Your task to perform on an android device: see sites visited before in the chrome app Image 0: 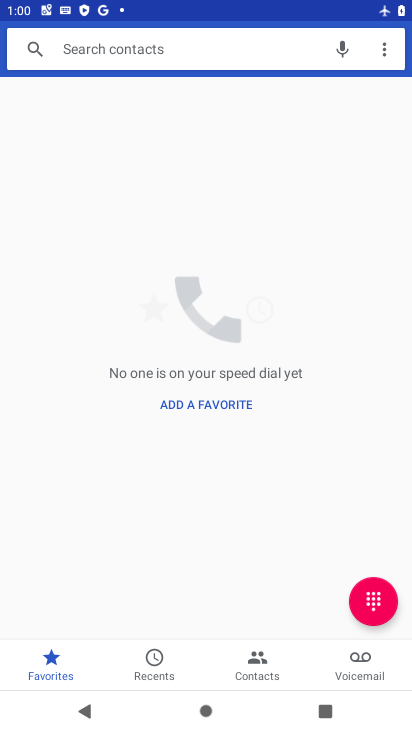
Step 0: press home button
Your task to perform on an android device: see sites visited before in the chrome app Image 1: 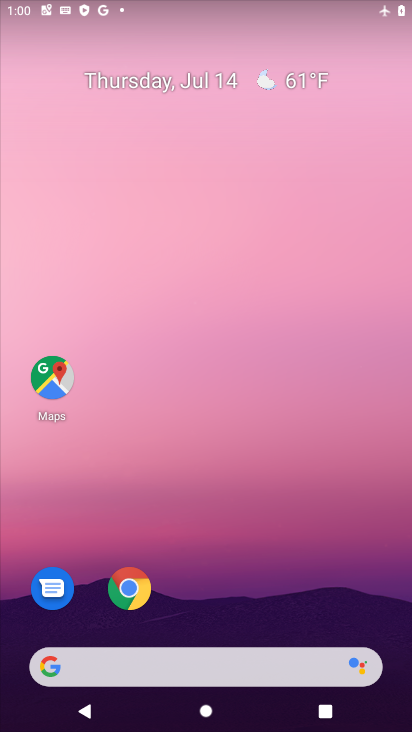
Step 1: click (130, 590)
Your task to perform on an android device: see sites visited before in the chrome app Image 2: 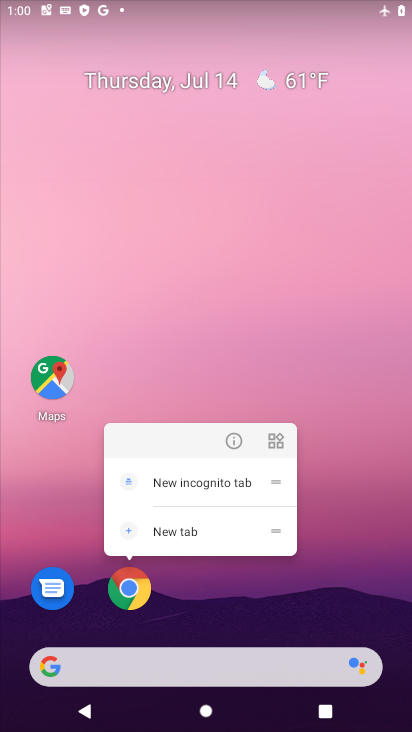
Step 2: click (132, 590)
Your task to perform on an android device: see sites visited before in the chrome app Image 3: 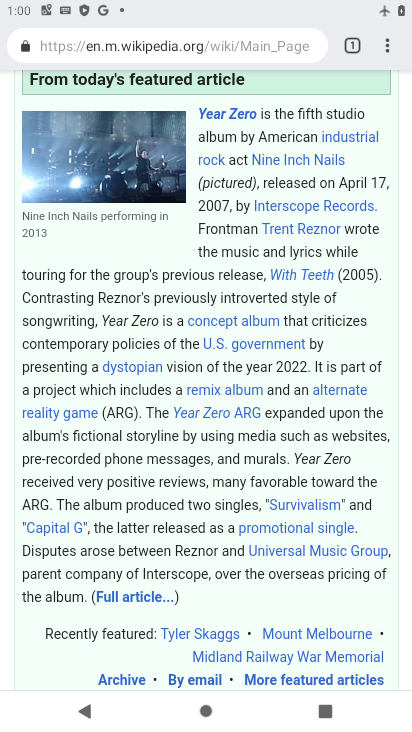
Step 3: click (387, 46)
Your task to perform on an android device: see sites visited before in the chrome app Image 4: 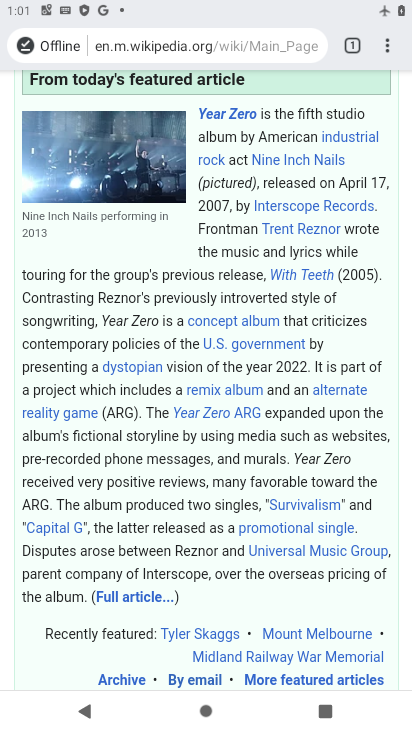
Step 4: click (384, 58)
Your task to perform on an android device: see sites visited before in the chrome app Image 5: 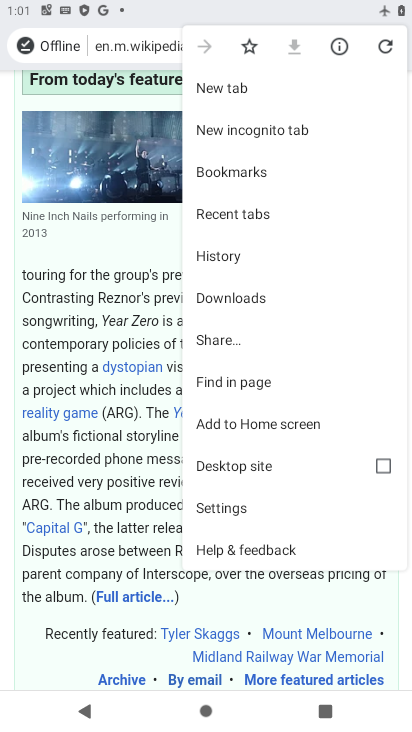
Step 5: click (231, 263)
Your task to perform on an android device: see sites visited before in the chrome app Image 6: 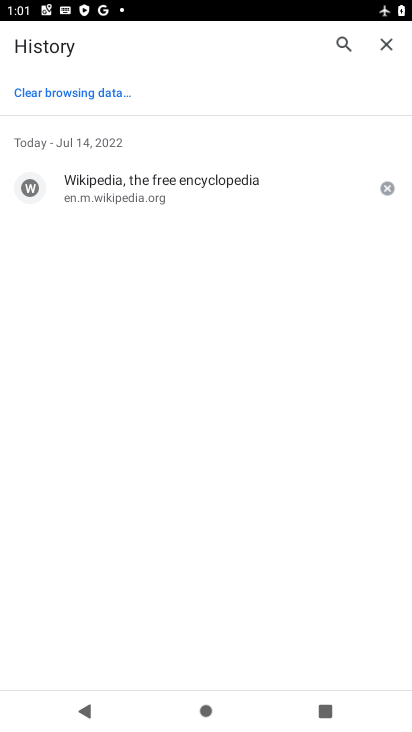
Step 6: task complete